Your task to perform on an android device: turn vacation reply on in the gmail app Image 0: 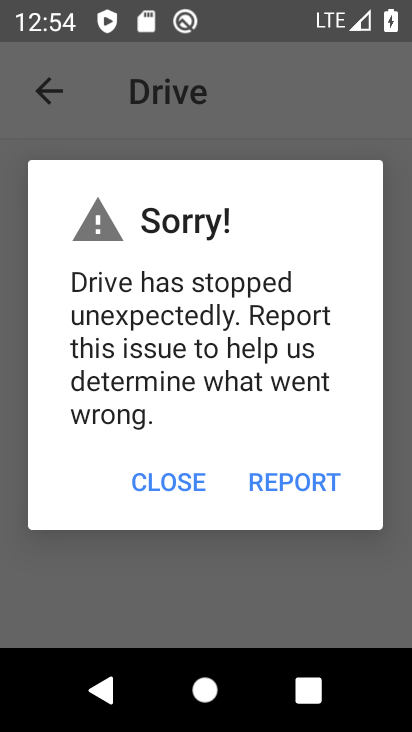
Step 0: press home button
Your task to perform on an android device: turn vacation reply on in the gmail app Image 1: 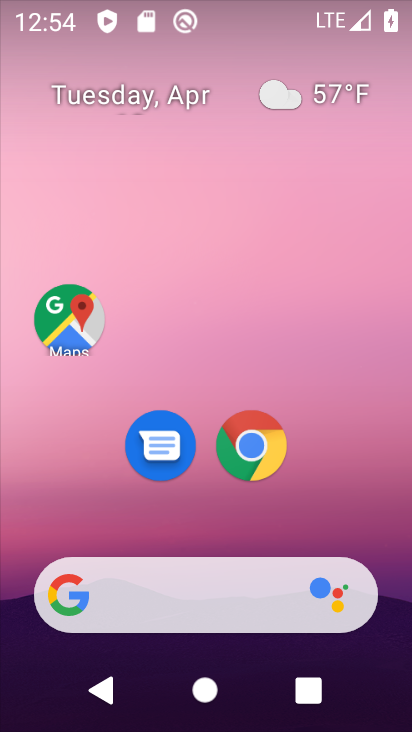
Step 1: drag from (357, 499) to (391, 85)
Your task to perform on an android device: turn vacation reply on in the gmail app Image 2: 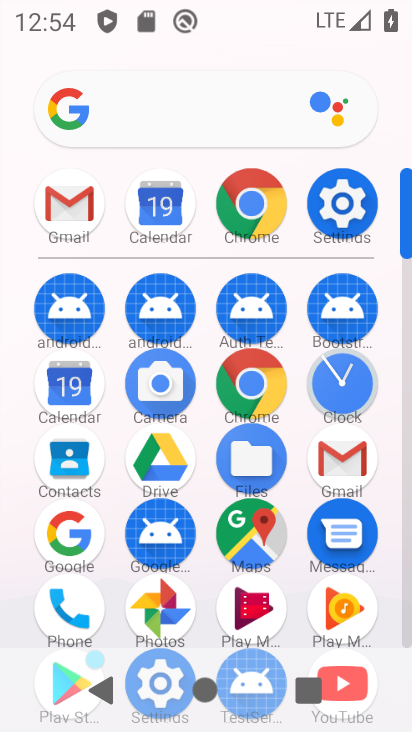
Step 2: click (338, 449)
Your task to perform on an android device: turn vacation reply on in the gmail app Image 3: 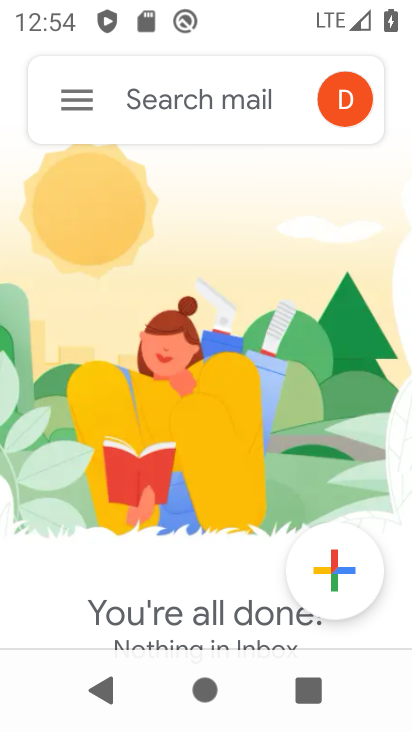
Step 3: click (85, 87)
Your task to perform on an android device: turn vacation reply on in the gmail app Image 4: 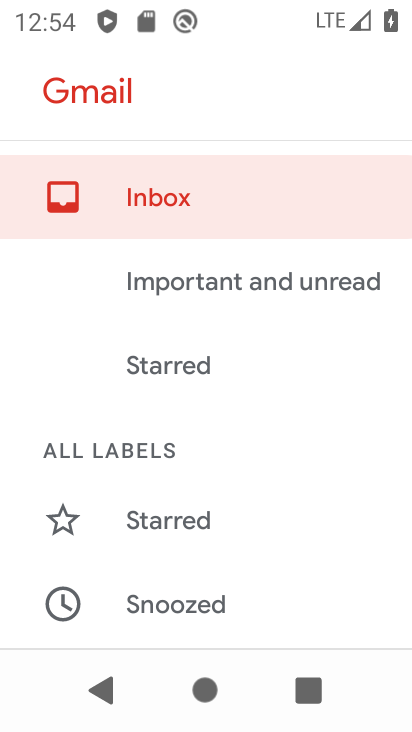
Step 4: drag from (261, 587) to (322, 102)
Your task to perform on an android device: turn vacation reply on in the gmail app Image 5: 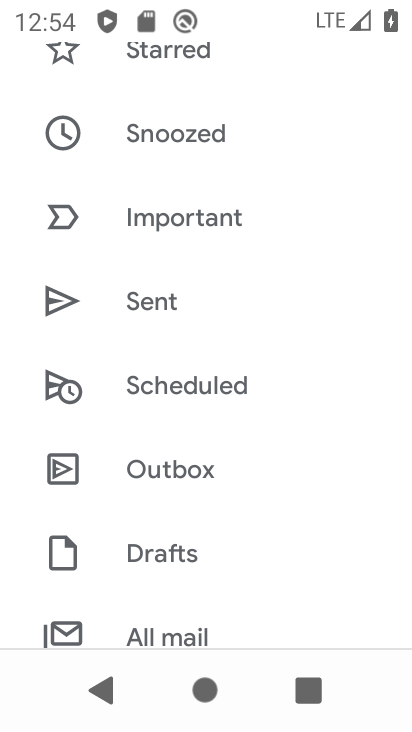
Step 5: drag from (255, 508) to (300, 186)
Your task to perform on an android device: turn vacation reply on in the gmail app Image 6: 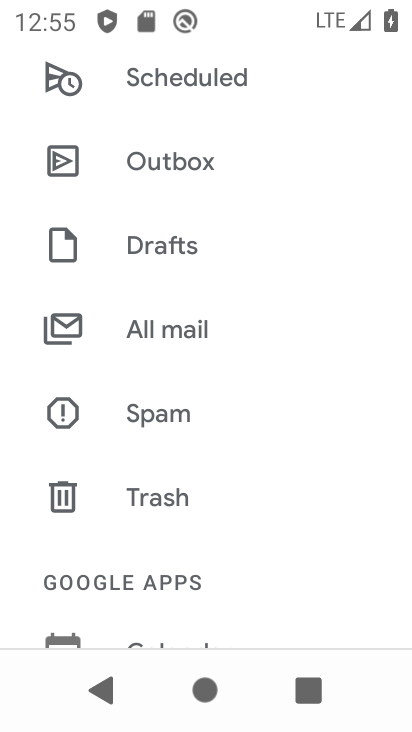
Step 6: drag from (237, 525) to (293, 160)
Your task to perform on an android device: turn vacation reply on in the gmail app Image 7: 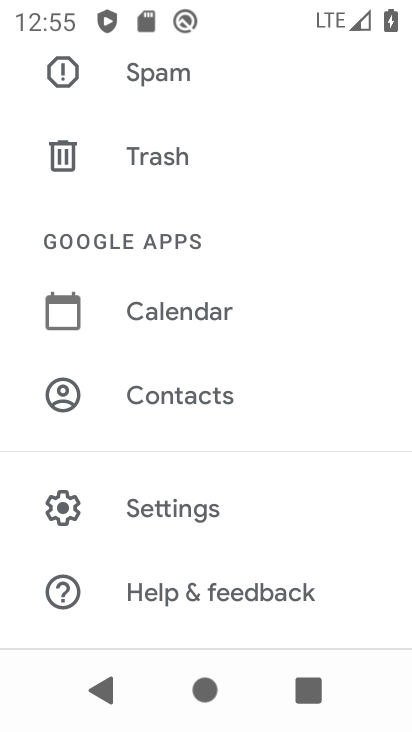
Step 7: click (187, 503)
Your task to perform on an android device: turn vacation reply on in the gmail app Image 8: 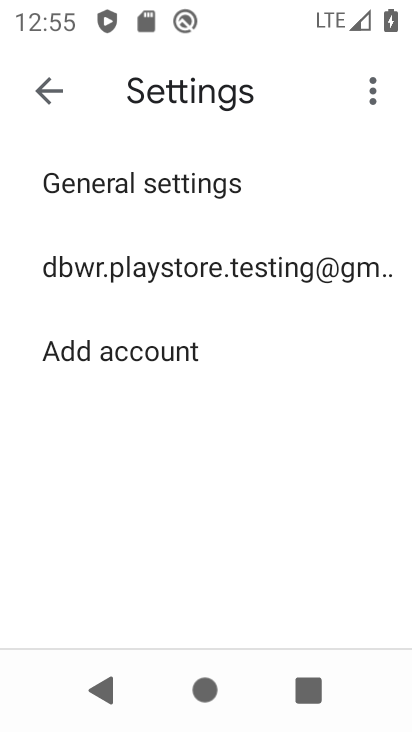
Step 8: click (272, 265)
Your task to perform on an android device: turn vacation reply on in the gmail app Image 9: 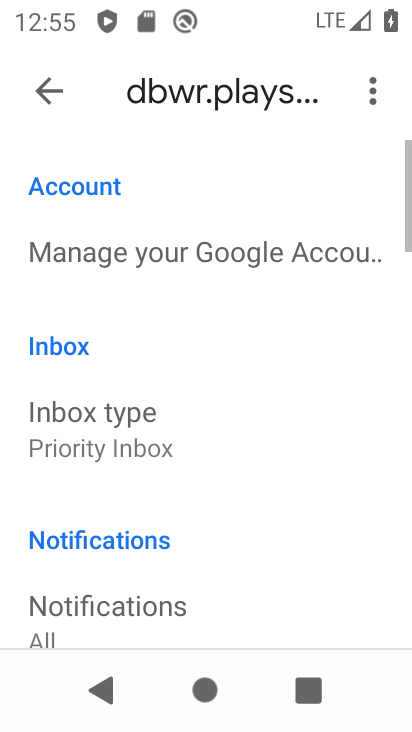
Step 9: drag from (302, 565) to (296, 222)
Your task to perform on an android device: turn vacation reply on in the gmail app Image 10: 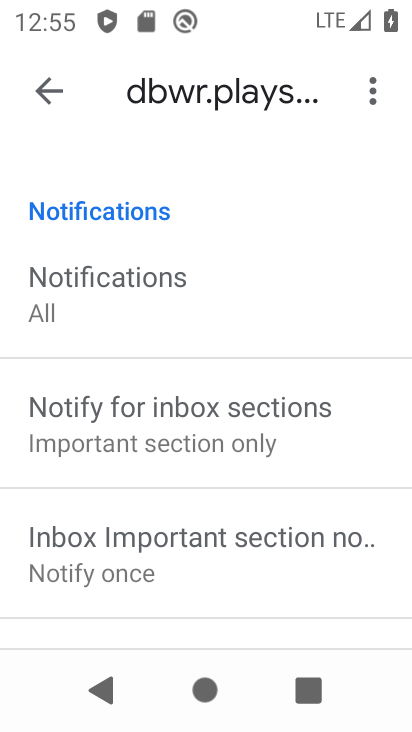
Step 10: drag from (232, 573) to (248, 172)
Your task to perform on an android device: turn vacation reply on in the gmail app Image 11: 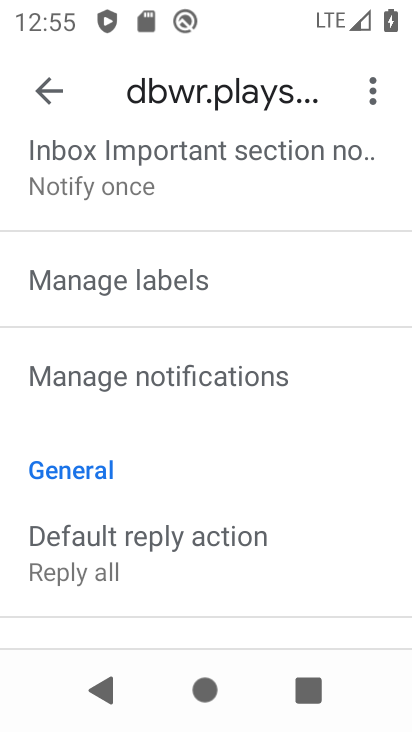
Step 11: drag from (222, 533) to (258, 226)
Your task to perform on an android device: turn vacation reply on in the gmail app Image 12: 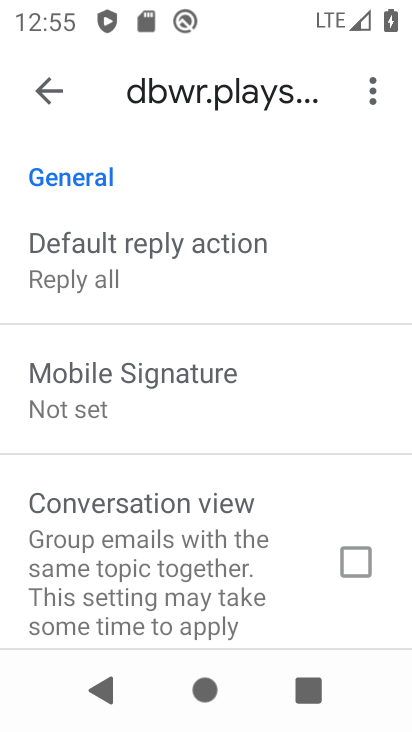
Step 12: drag from (236, 514) to (250, 227)
Your task to perform on an android device: turn vacation reply on in the gmail app Image 13: 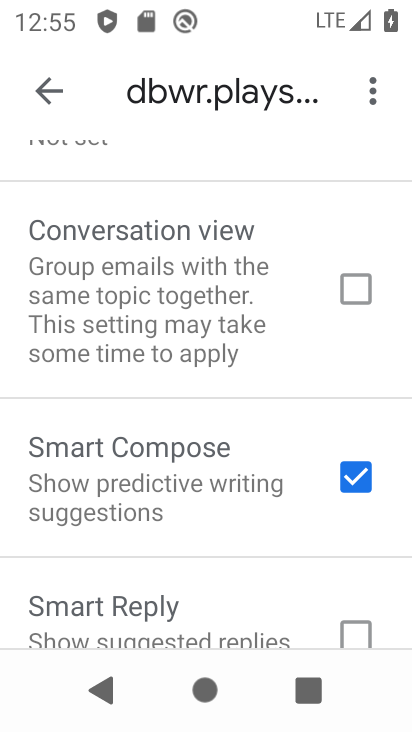
Step 13: drag from (209, 554) to (230, 290)
Your task to perform on an android device: turn vacation reply on in the gmail app Image 14: 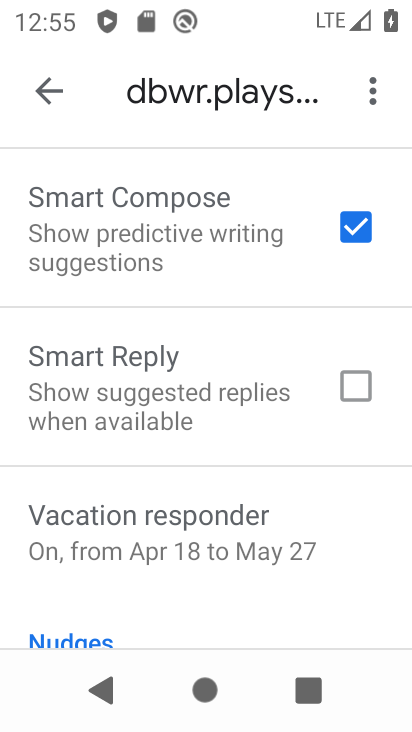
Step 14: click (252, 533)
Your task to perform on an android device: turn vacation reply on in the gmail app Image 15: 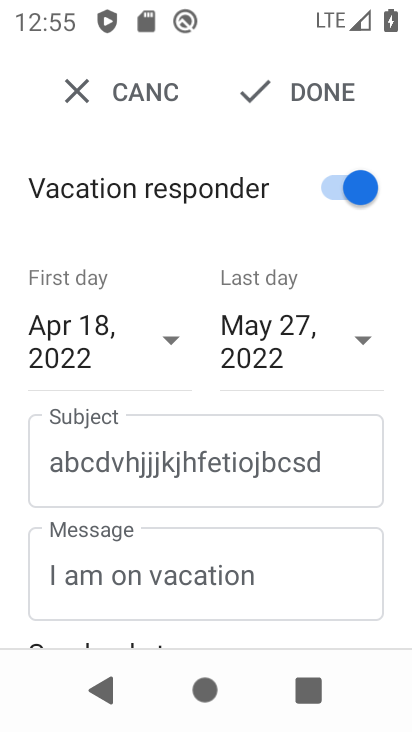
Step 15: task complete